Your task to perform on an android device: Open sound settings Image 0: 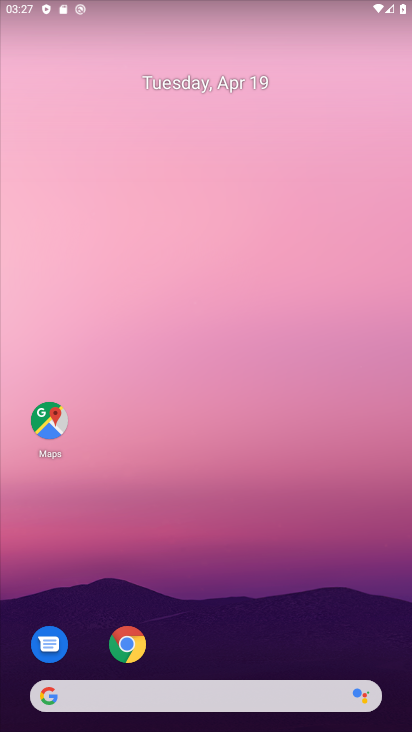
Step 0: drag from (373, 634) to (326, 186)
Your task to perform on an android device: Open sound settings Image 1: 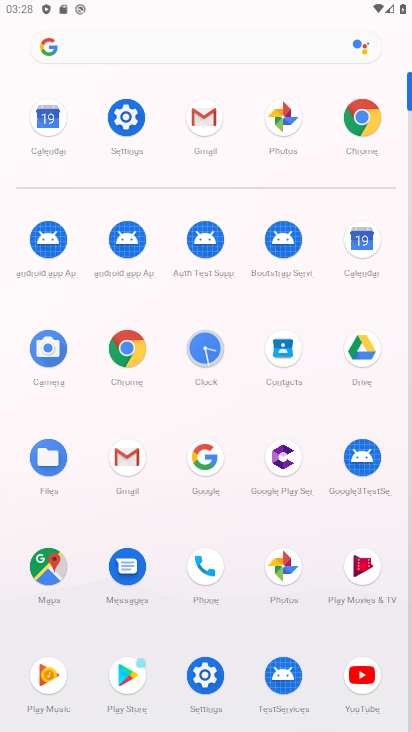
Step 1: click (200, 678)
Your task to perform on an android device: Open sound settings Image 2: 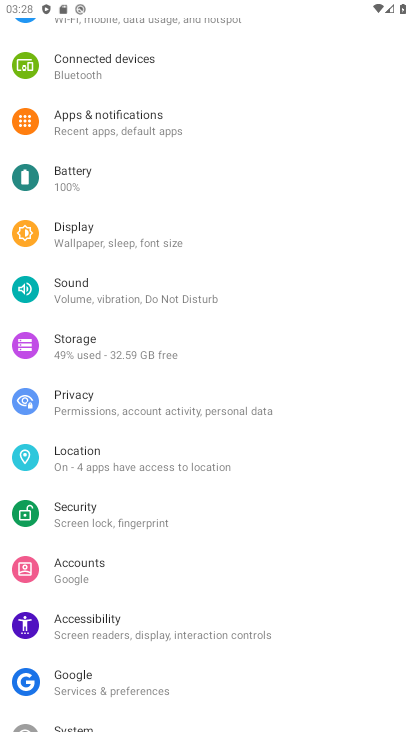
Step 2: click (91, 287)
Your task to perform on an android device: Open sound settings Image 3: 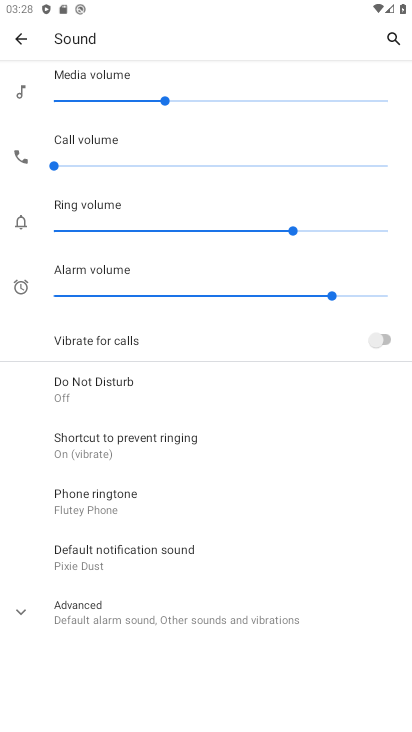
Step 3: drag from (219, 391) to (227, 262)
Your task to perform on an android device: Open sound settings Image 4: 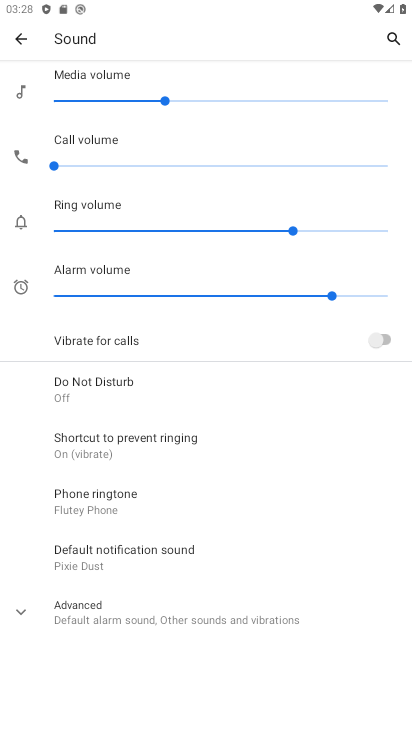
Step 4: click (19, 617)
Your task to perform on an android device: Open sound settings Image 5: 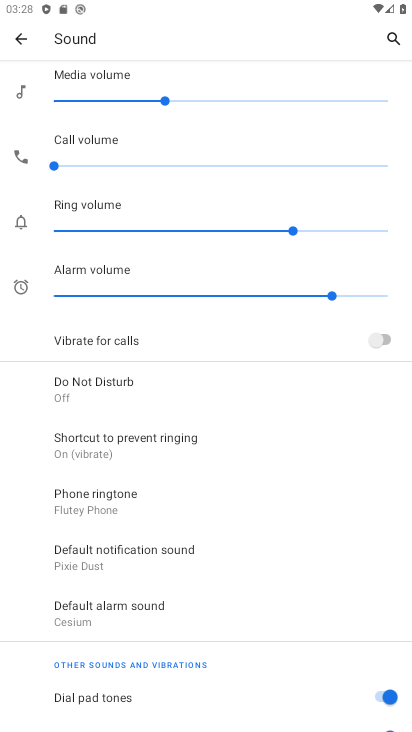
Step 5: task complete